Your task to perform on an android device: Open Google Chrome and open the bookmarks view Image 0: 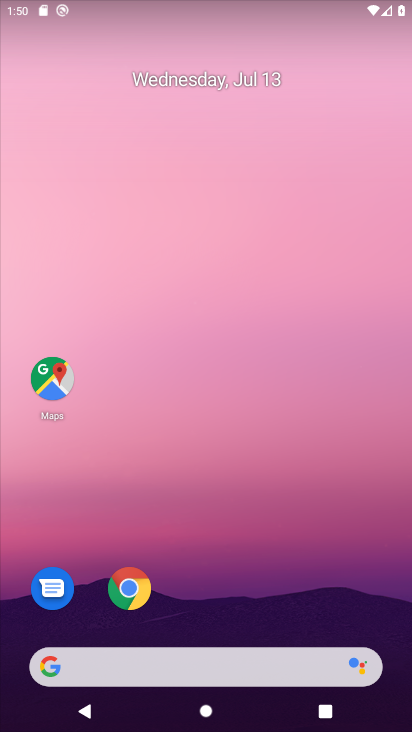
Step 0: click (122, 581)
Your task to perform on an android device: Open Google Chrome and open the bookmarks view Image 1: 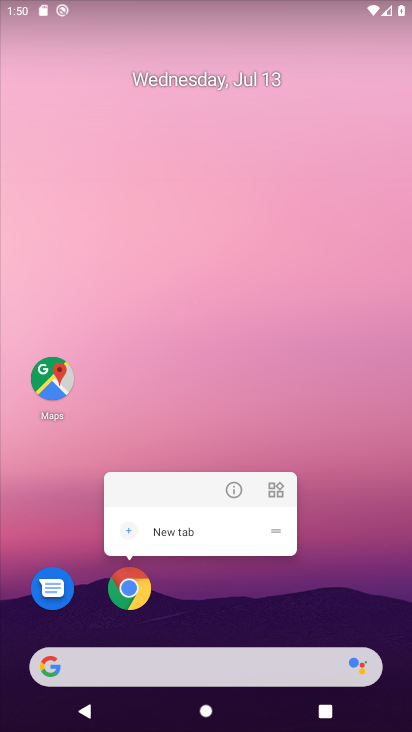
Step 1: click (144, 601)
Your task to perform on an android device: Open Google Chrome and open the bookmarks view Image 2: 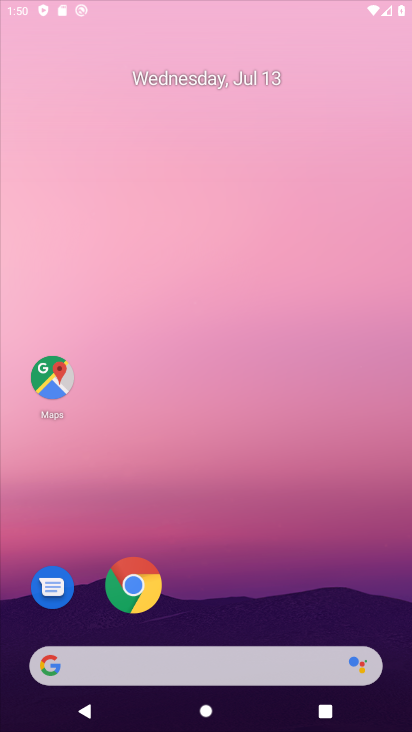
Step 2: click (122, 593)
Your task to perform on an android device: Open Google Chrome and open the bookmarks view Image 3: 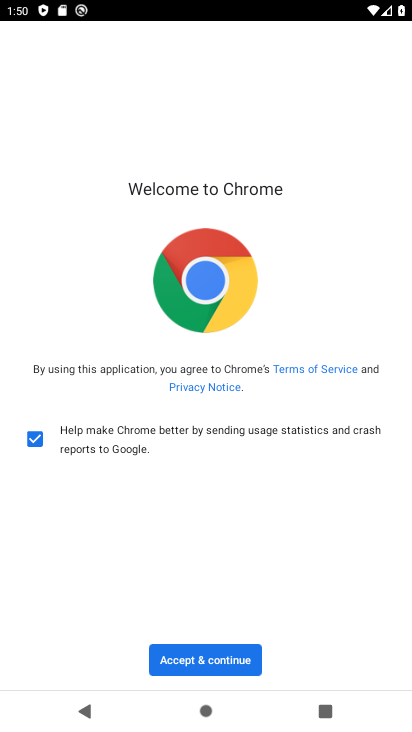
Step 3: click (219, 666)
Your task to perform on an android device: Open Google Chrome and open the bookmarks view Image 4: 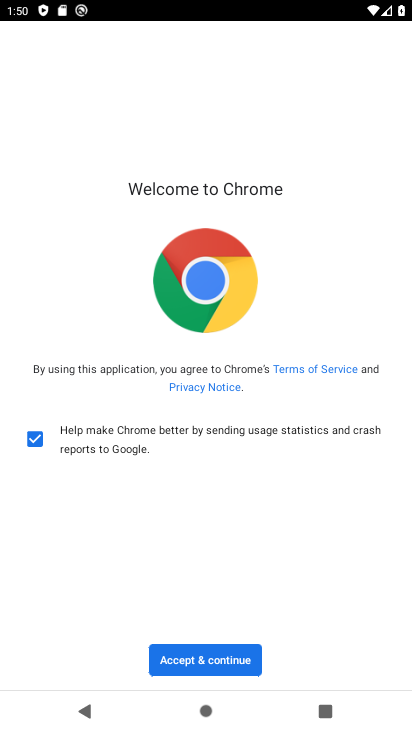
Step 4: click (240, 675)
Your task to perform on an android device: Open Google Chrome and open the bookmarks view Image 5: 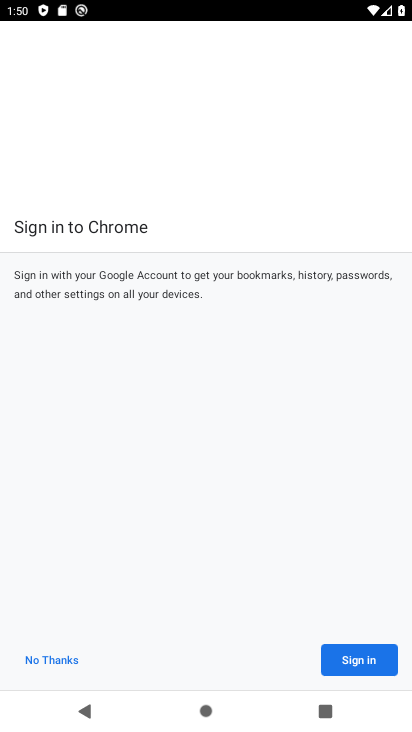
Step 5: click (374, 661)
Your task to perform on an android device: Open Google Chrome and open the bookmarks view Image 6: 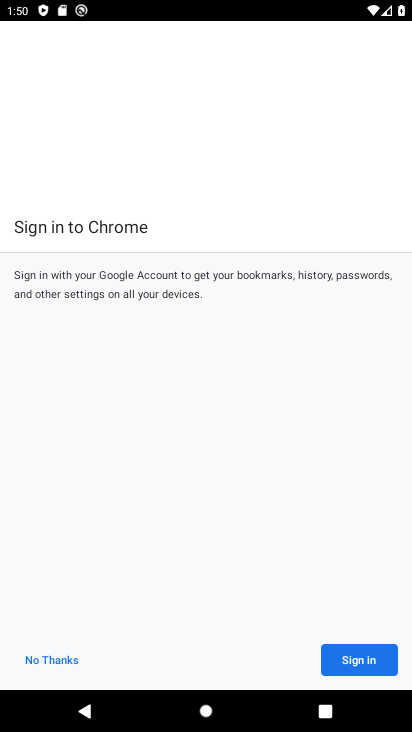
Step 6: click (374, 661)
Your task to perform on an android device: Open Google Chrome and open the bookmarks view Image 7: 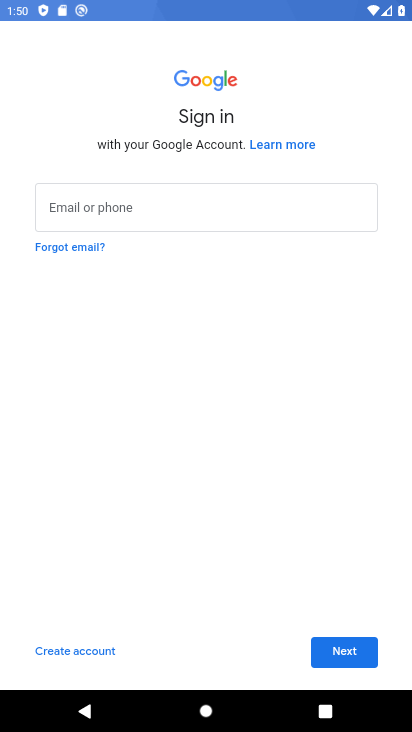
Step 7: press back button
Your task to perform on an android device: Open Google Chrome and open the bookmarks view Image 8: 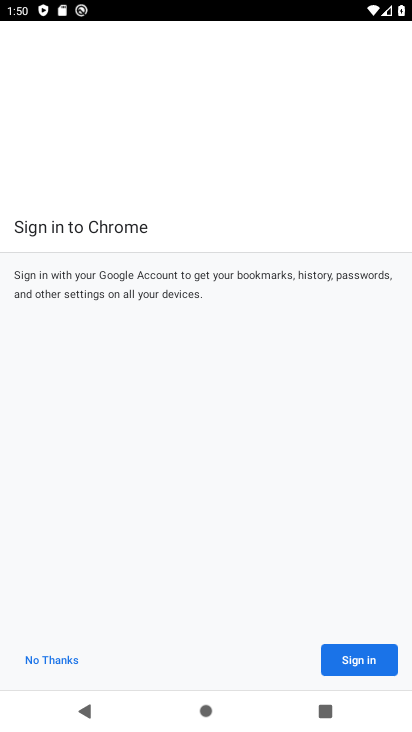
Step 8: click (69, 668)
Your task to perform on an android device: Open Google Chrome and open the bookmarks view Image 9: 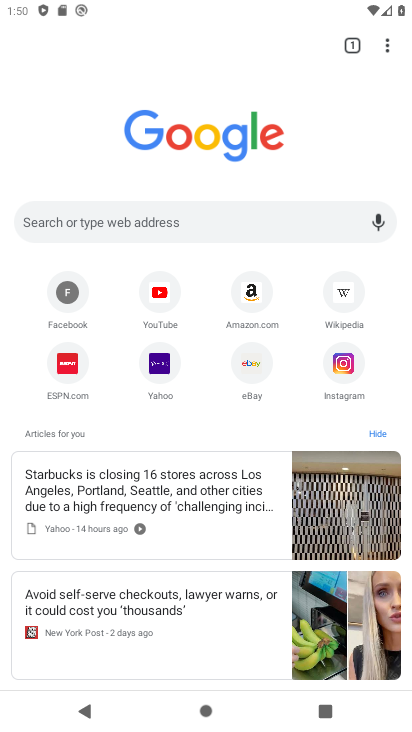
Step 9: task complete